Your task to perform on an android device: open wifi settings Image 0: 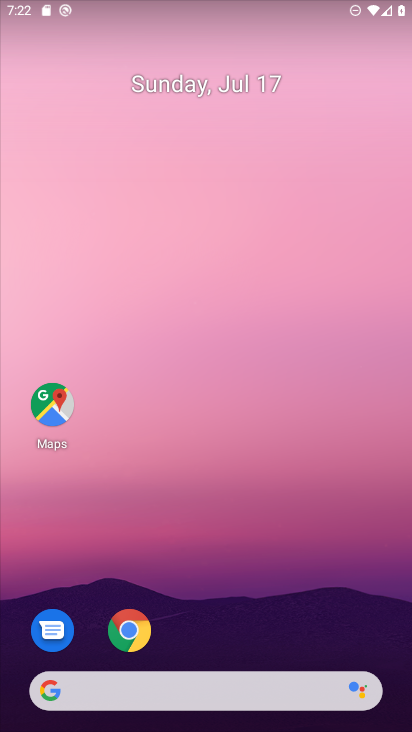
Step 0: drag from (318, 634) to (233, 40)
Your task to perform on an android device: open wifi settings Image 1: 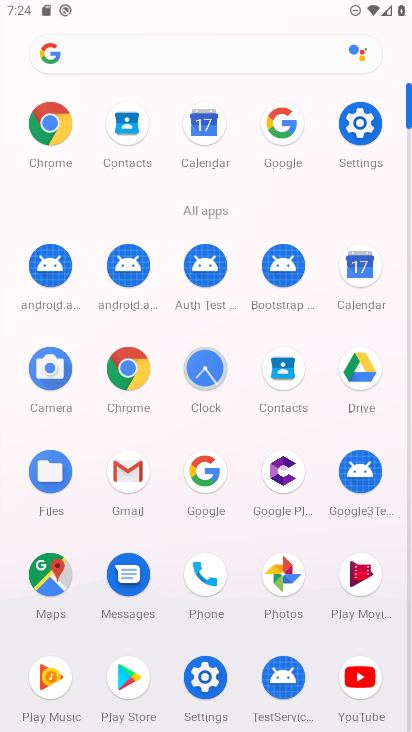
Step 1: click (213, 680)
Your task to perform on an android device: open wifi settings Image 2: 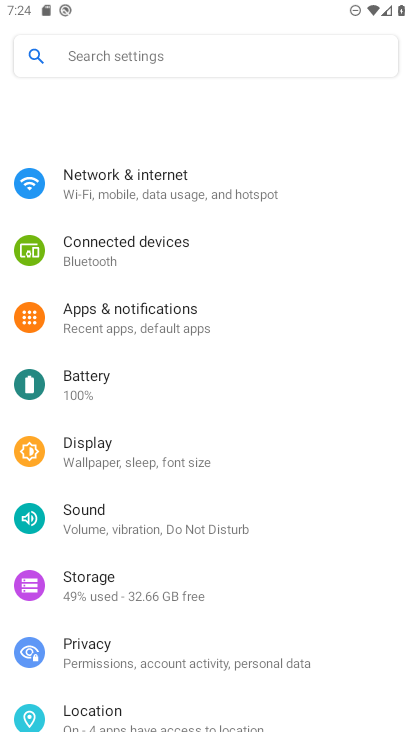
Step 2: click (157, 293)
Your task to perform on an android device: open wifi settings Image 3: 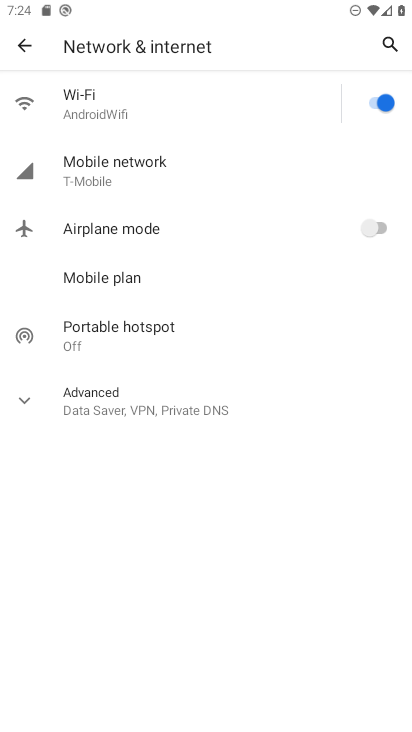
Step 3: click (208, 104)
Your task to perform on an android device: open wifi settings Image 4: 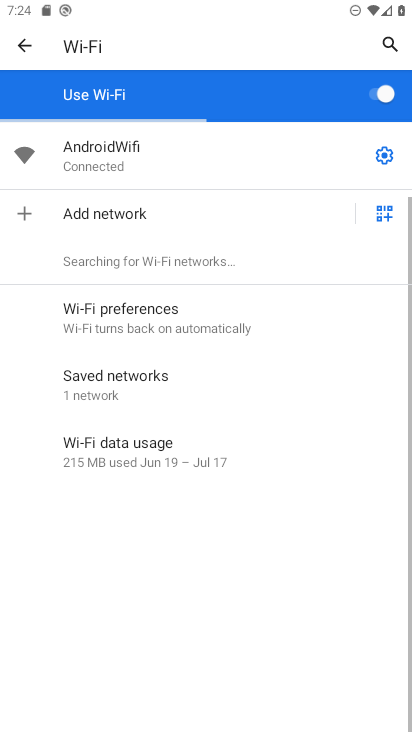
Step 4: task complete